Your task to perform on an android device: remove spam from my inbox in the gmail app Image 0: 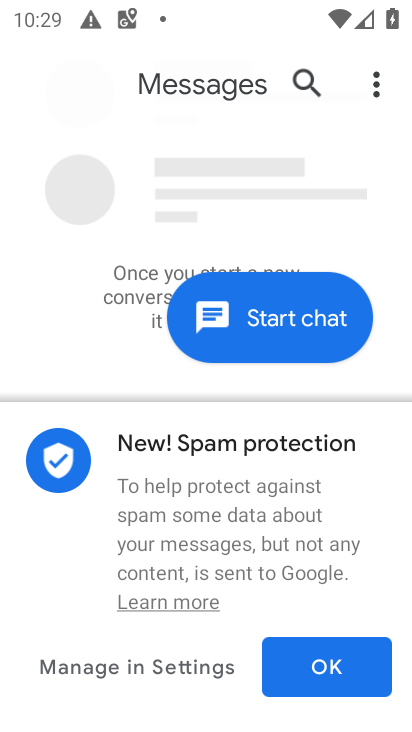
Step 0: press home button
Your task to perform on an android device: remove spam from my inbox in the gmail app Image 1: 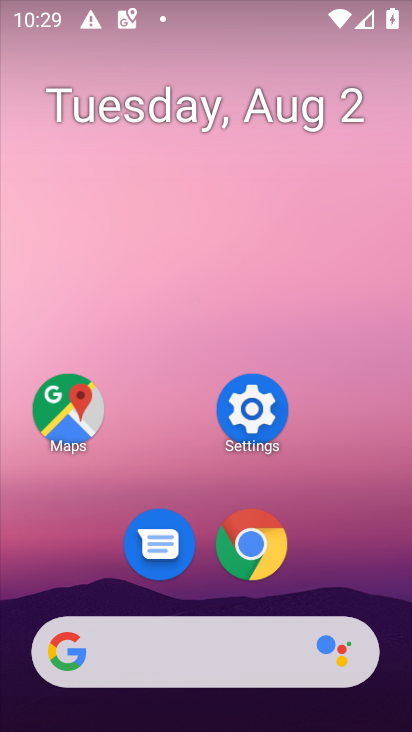
Step 1: drag from (227, 641) to (327, 107)
Your task to perform on an android device: remove spam from my inbox in the gmail app Image 2: 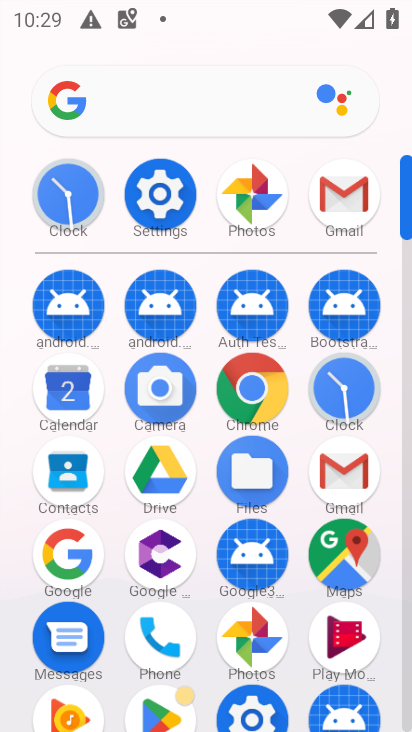
Step 2: click (357, 211)
Your task to perform on an android device: remove spam from my inbox in the gmail app Image 3: 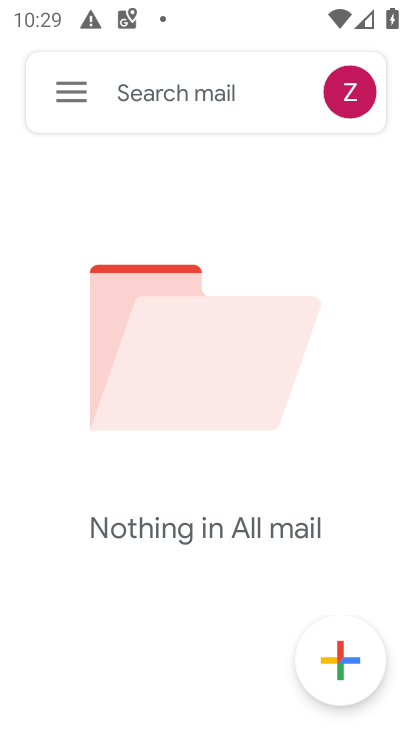
Step 3: click (70, 96)
Your task to perform on an android device: remove spam from my inbox in the gmail app Image 4: 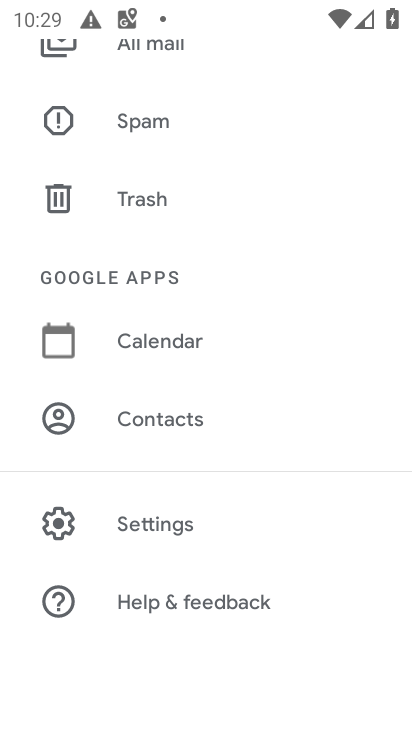
Step 4: click (151, 121)
Your task to perform on an android device: remove spam from my inbox in the gmail app Image 5: 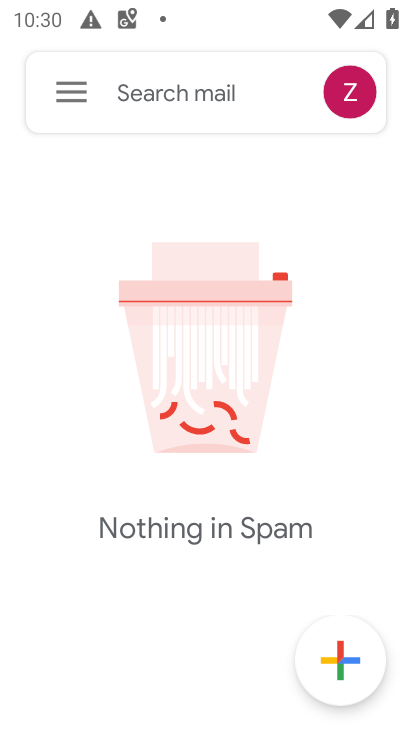
Step 5: task complete